Your task to perform on an android device: turn off notifications in google photos Image 0: 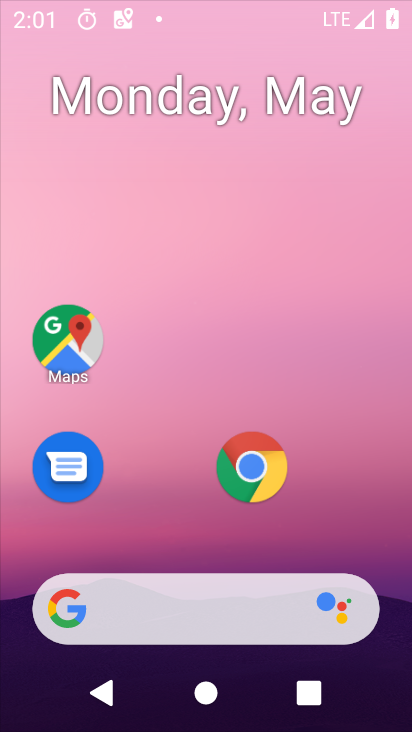
Step 0: click (258, 166)
Your task to perform on an android device: turn off notifications in google photos Image 1: 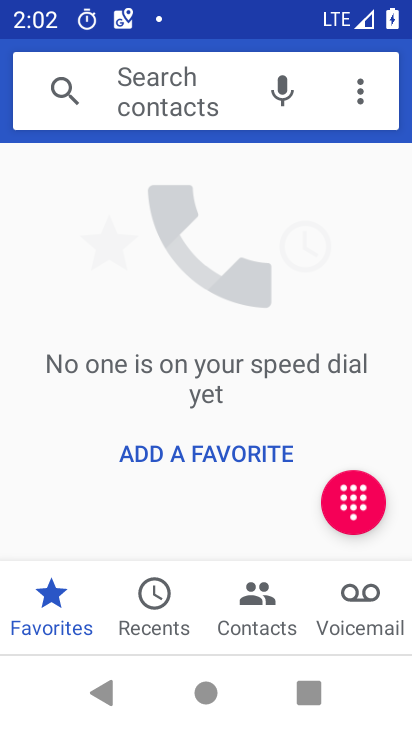
Step 1: drag from (212, 481) to (168, 206)
Your task to perform on an android device: turn off notifications in google photos Image 2: 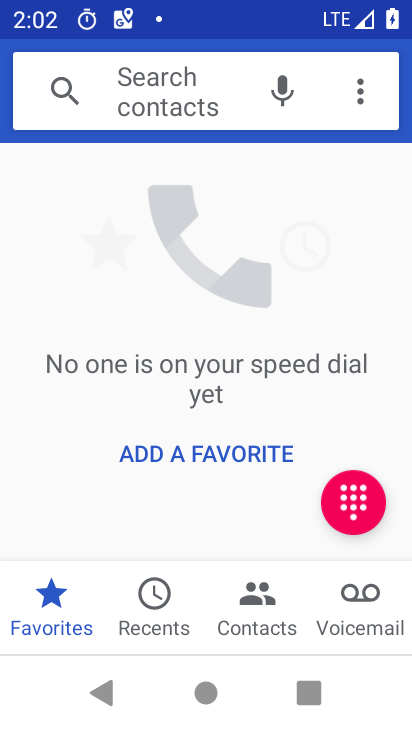
Step 2: press home button
Your task to perform on an android device: turn off notifications in google photos Image 3: 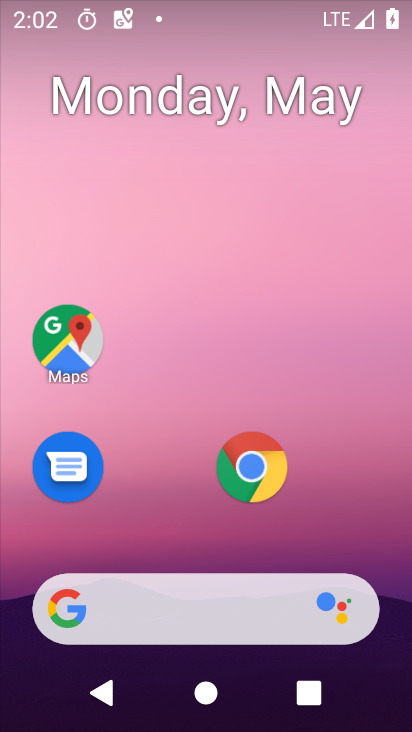
Step 3: drag from (197, 550) to (138, 129)
Your task to perform on an android device: turn off notifications in google photos Image 4: 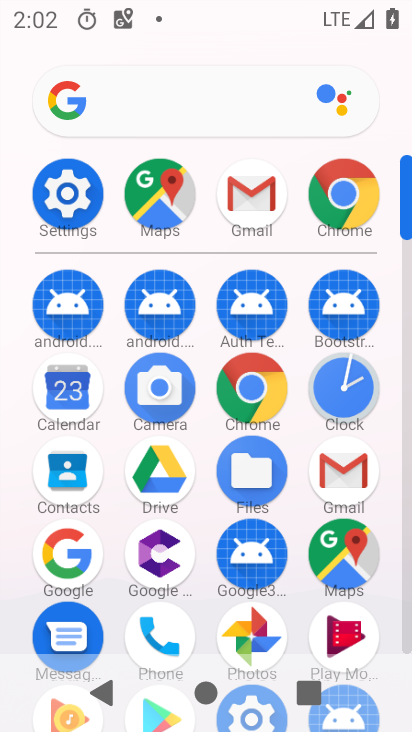
Step 4: click (260, 618)
Your task to perform on an android device: turn off notifications in google photos Image 5: 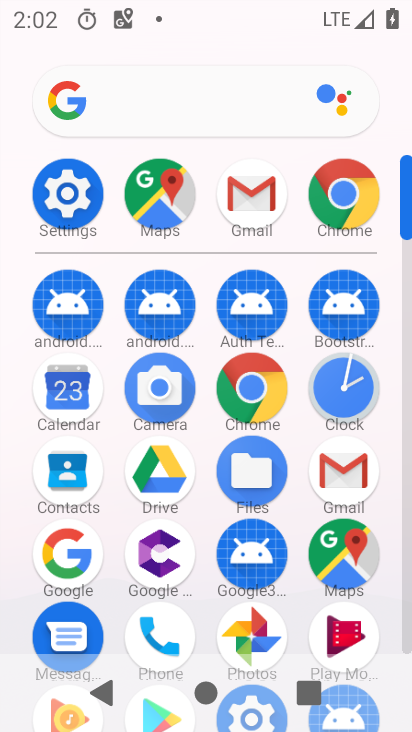
Step 5: click (260, 618)
Your task to perform on an android device: turn off notifications in google photos Image 6: 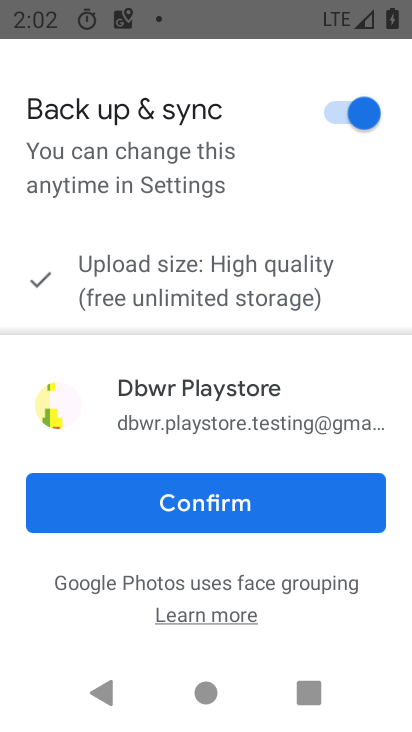
Step 6: click (146, 503)
Your task to perform on an android device: turn off notifications in google photos Image 7: 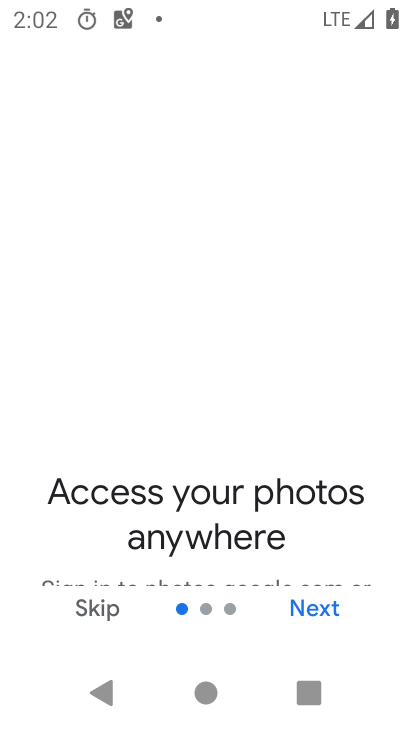
Step 7: click (90, 614)
Your task to perform on an android device: turn off notifications in google photos Image 8: 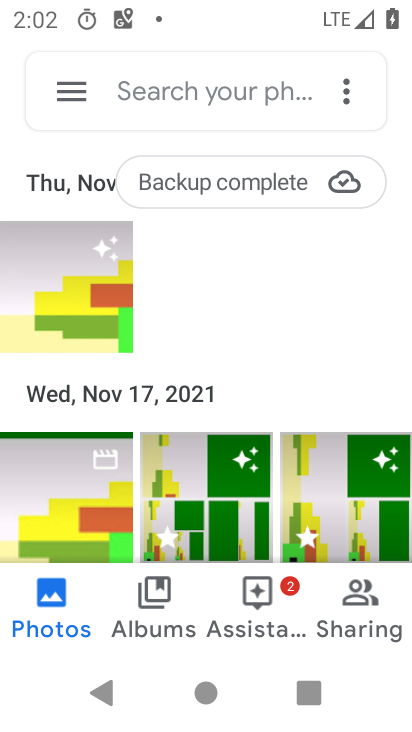
Step 8: click (73, 93)
Your task to perform on an android device: turn off notifications in google photos Image 9: 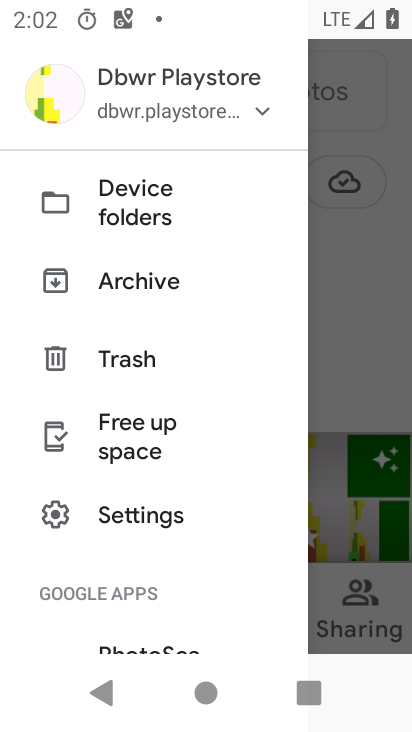
Step 9: click (135, 525)
Your task to perform on an android device: turn off notifications in google photos Image 10: 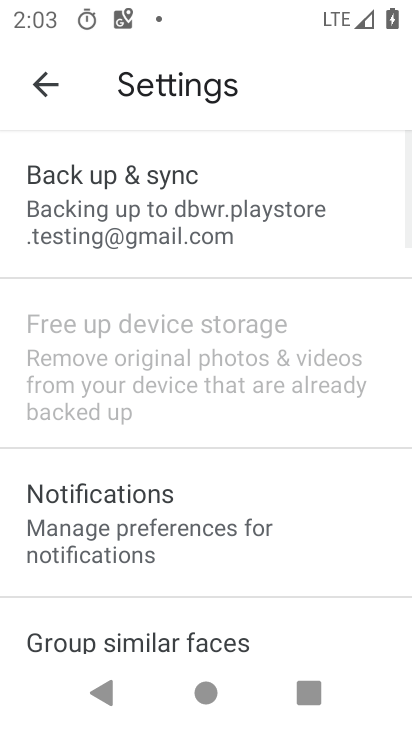
Step 10: drag from (136, 511) to (157, 72)
Your task to perform on an android device: turn off notifications in google photos Image 11: 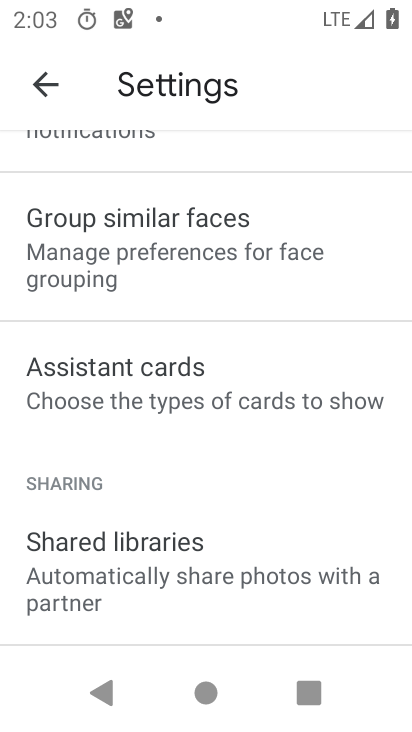
Step 11: drag from (149, 269) to (353, 712)
Your task to perform on an android device: turn off notifications in google photos Image 12: 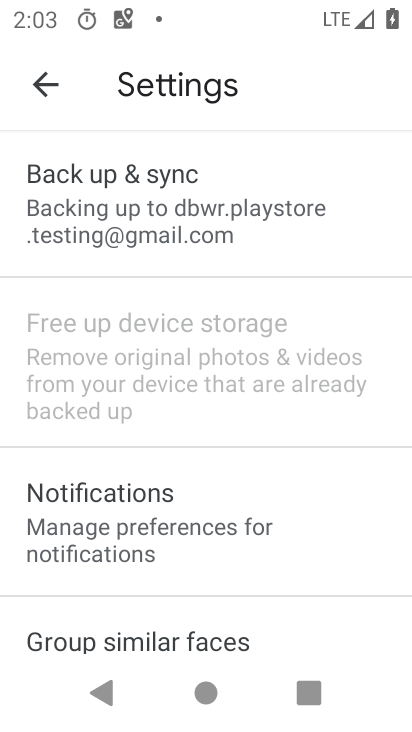
Step 12: click (193, 509)
Your task to perform on an android device: turn off notifications in google photos Image 13: 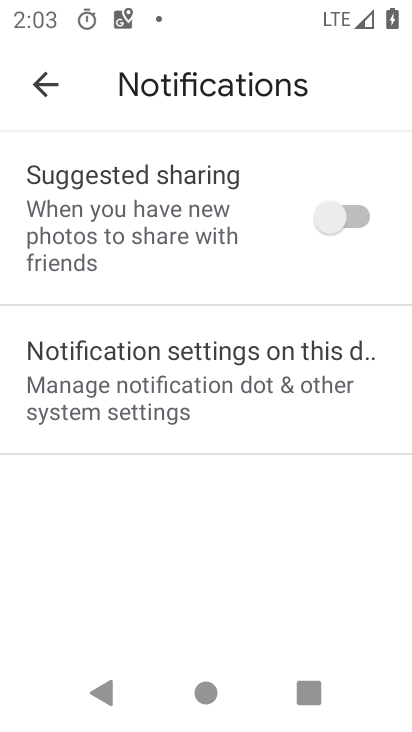
Step 13: click (133, 401)
Your task to perform on an android device: turn off notifications in google photos Image 14: 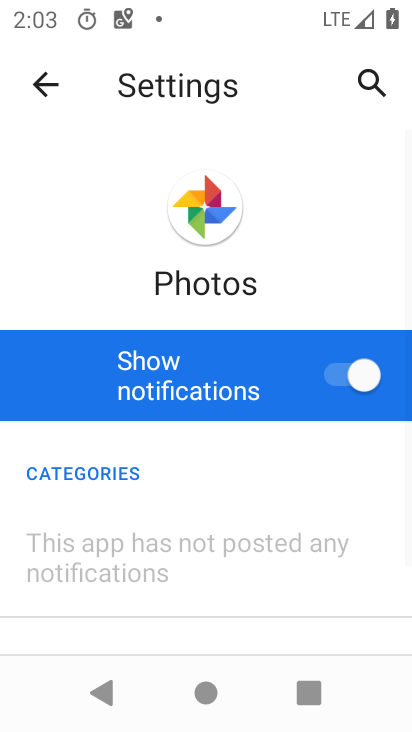
Step 14: drag from (230, 522) to (258, 159)
Your task to perform on an android device: turn off notifications in google photos Image 15: 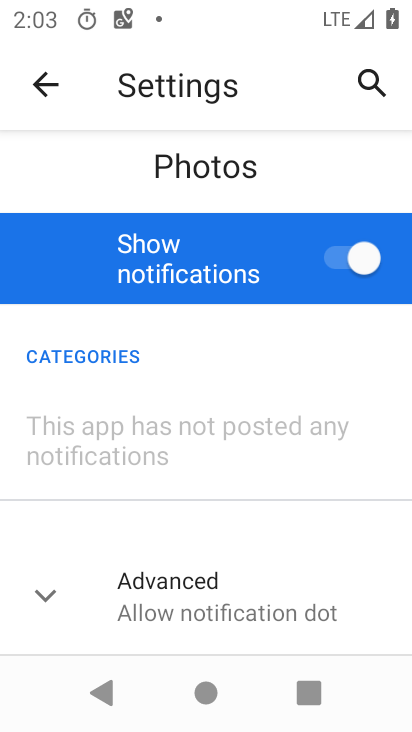
Step 15: drag from (230, 565) to (197, 197)
Your task to perform on an android device: turn off notifications in google photos Image 16: 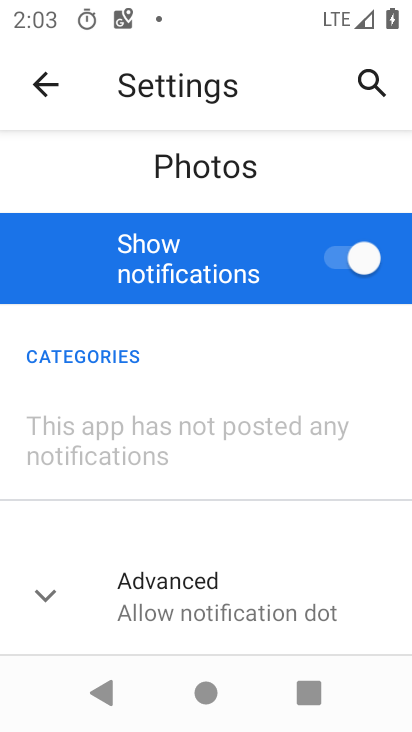
Step 16: click (162, 603)
Your task to perform on an android device: turn off notifications in google photos Image 17: 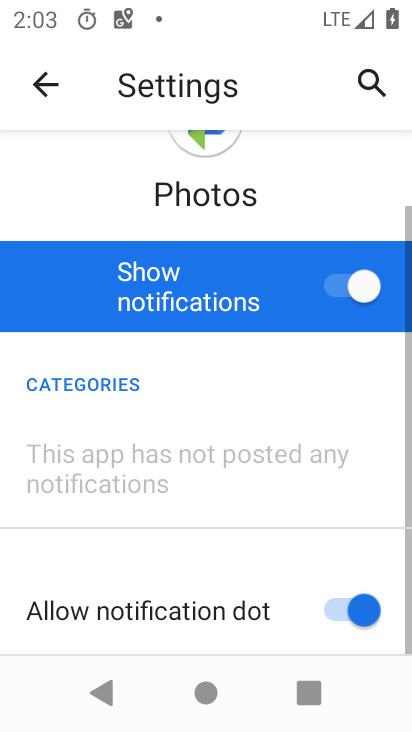
Step 17: drag from (175, 589) to (210, 328)
Your task to perform on an android device: turn off notifications in google photos Image 18: 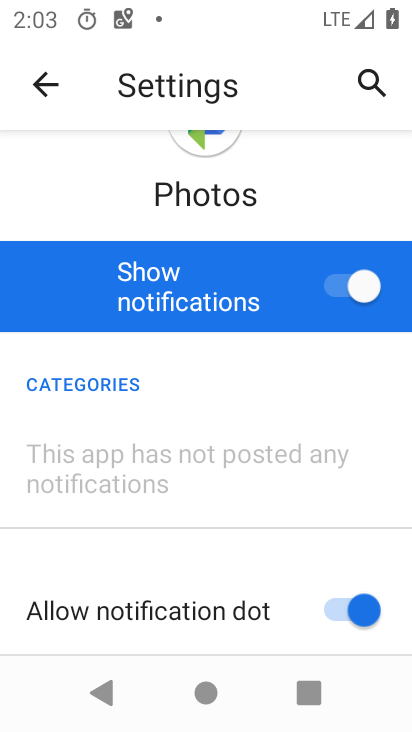
Step 18: click (383, 273)
Your task to perform on an android device: turn off notifications in google photos Image 19: 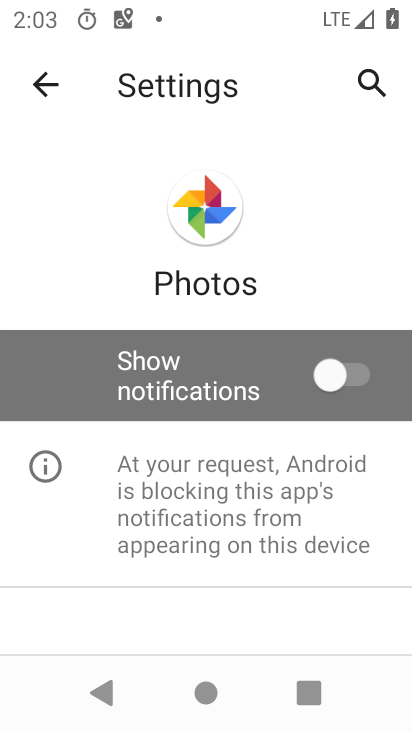
Step 19: task complete